Your task to perform on an android device: Open the calendar app, open the side menu, and click the "Day" option Image 0: 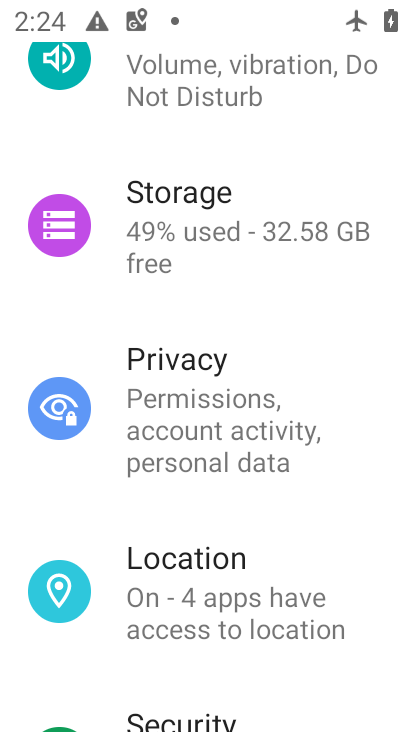
Step 0: press back button
Your task to perform on an android device: Open the calendar app, open the side menu, and click the "Day" option Image 1: 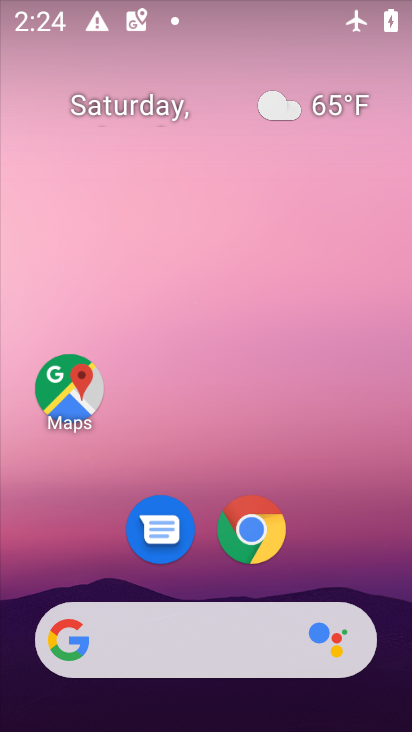
Step 1: drag from (365, 579) to (284, 114)
Your task to perform on an android device: Open the calendar app, open the side menu, and click the "Day" option Image 2: 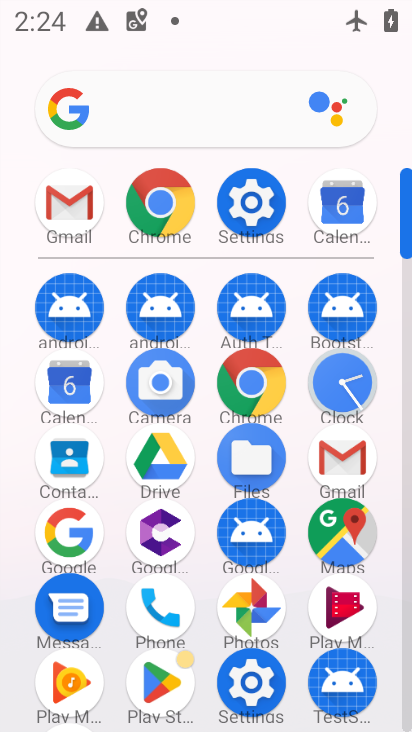
Step 2: click (337, 204)
Your task to perform on an android device: Open the calendar app, open the side menu, and click the "Day" option Image 3: 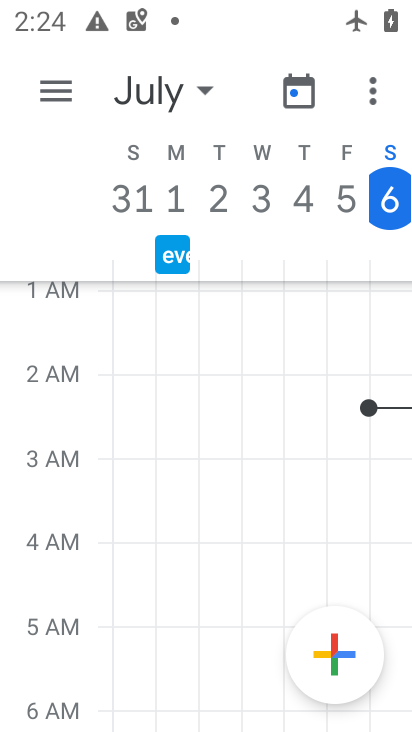
Step 3: click (51, 92)
Your task to perform on an android device: Open the calendar app, open the side menu, and click the "Day" option Image 4: 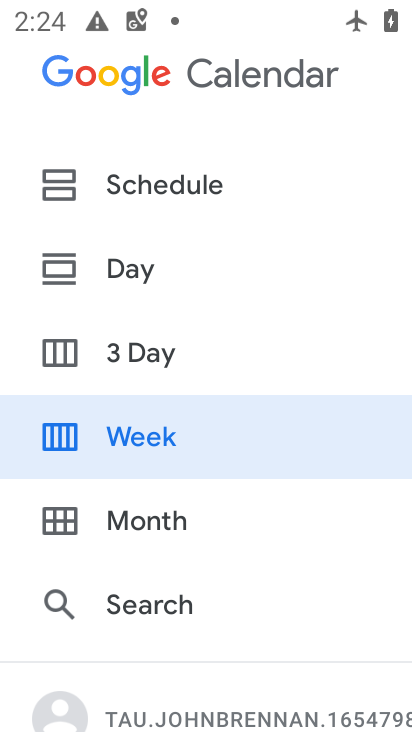
Step 4: click (158, 283)
Your task to perform on an android device: Open the calendar app, open the side menu, and click the "Day" option Image 5: 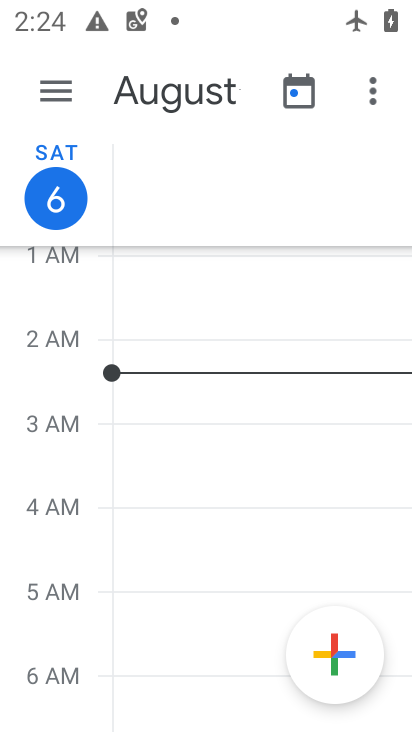
Step 5: click (63, 86)
Your task to perform on an android device: Open the calendar app, open the side menu, and click the "Day" option Image 6: 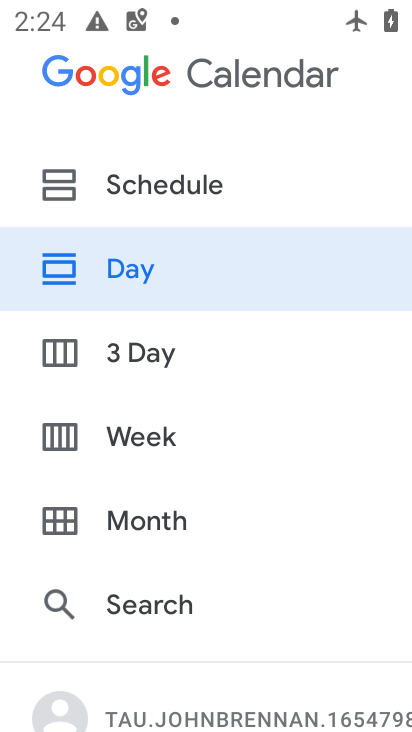
Step 6: click (140, 287)
Your task to perform on an android device: Open the calendar app, open the side menu, and click the "Day" option Image 7: 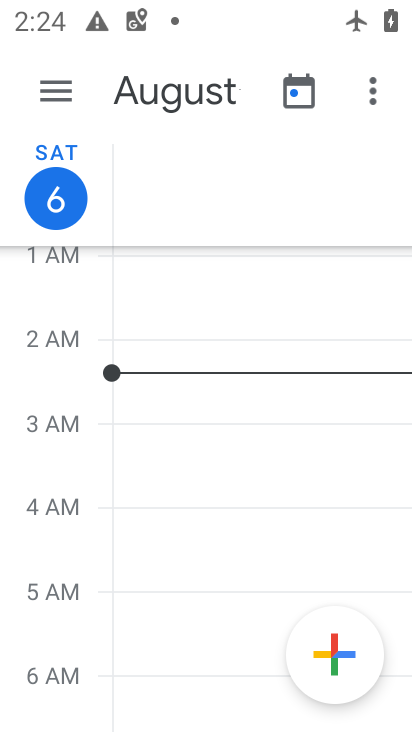
Step 7: task complete